Your task to perform on an android device: change notifications settings Image 0: 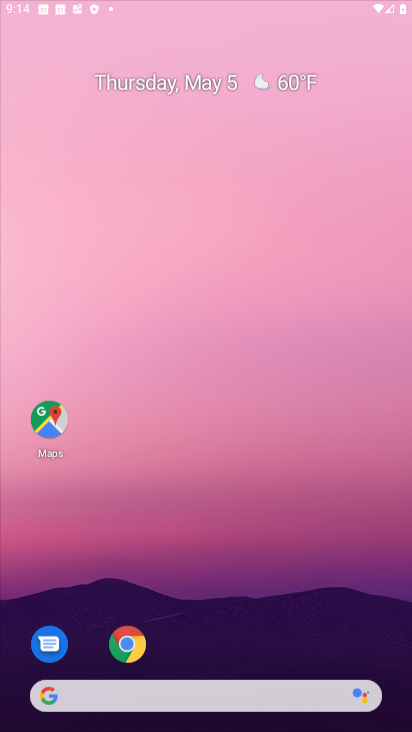
Step 0: drag from (300, 63) to (15, 124)
Your task to perform on an android device: change notifications settings Image 1: 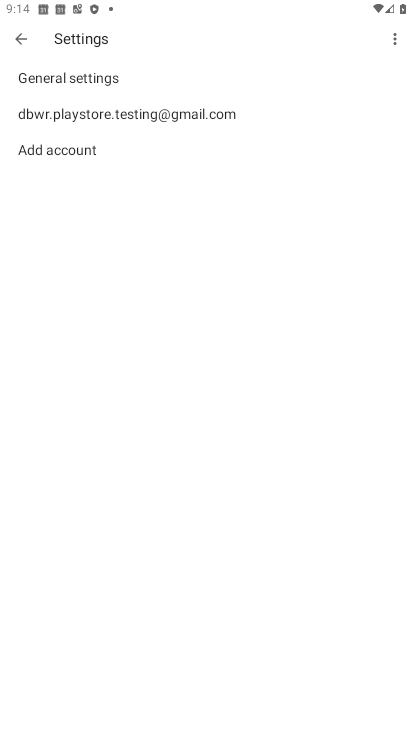
Step 1: press home button
Your task to perform on an android device: change notifications settings Image 2: 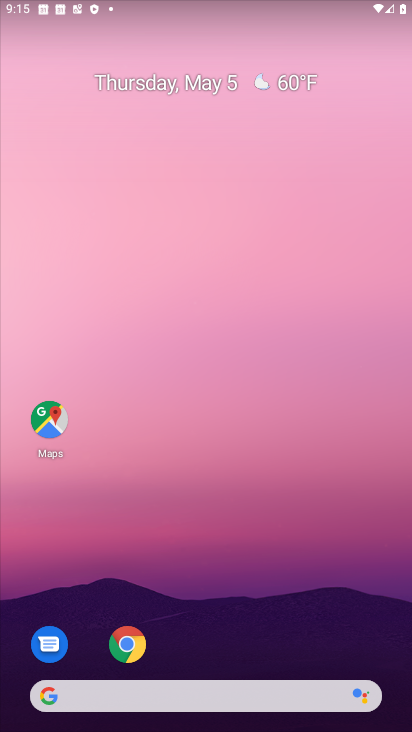
Step 2: drag from (199, 539) to (216, 106)
Your task to perform on an android device: change notifications settings Image 3: 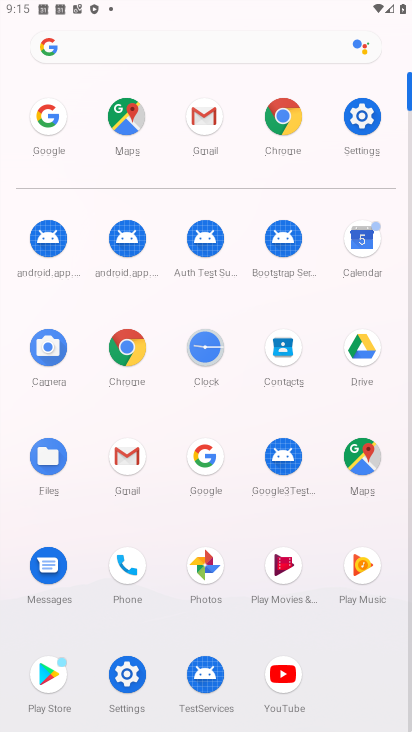
Step 3: click (366, 113)
Your task to perform on an android device: change notifications settings Image 4: 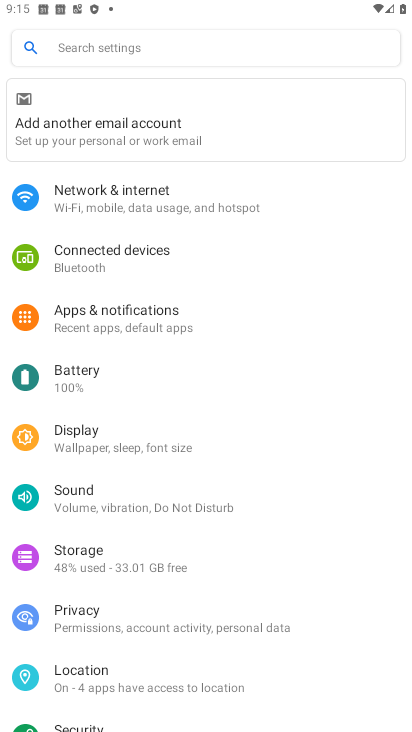
Step 4: click (118, 319)
Your task to perform on an android device: change notifications settings Image 5: 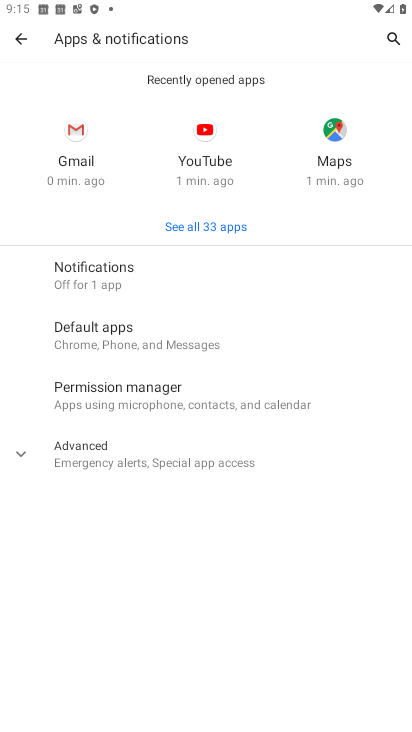
Step 5: click (125, 274)
Your task to perform on an android device: change notifications settings Image 6: 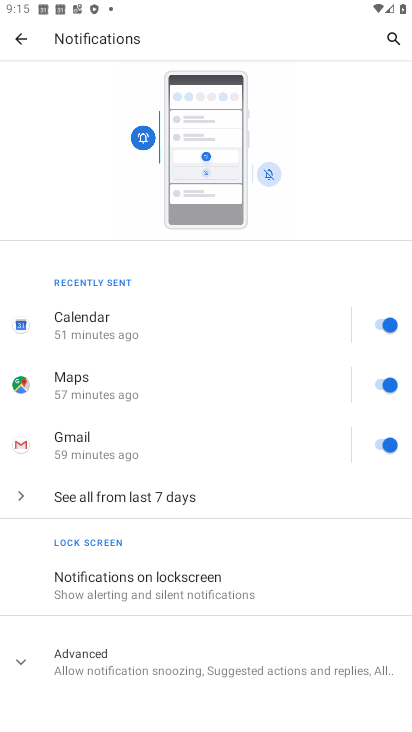
Step 6: click (377, 376)
Your task to perform on an android device: change notifications settings Image 7: 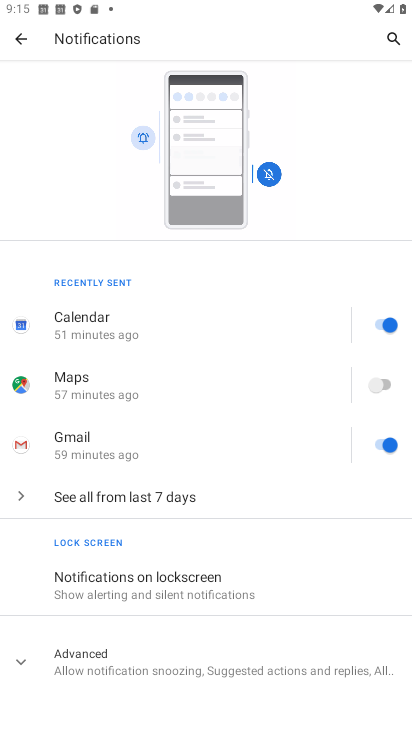
Step 7: task complete